Your task to perform on an android device: add a contact in the contacts app Image 0: 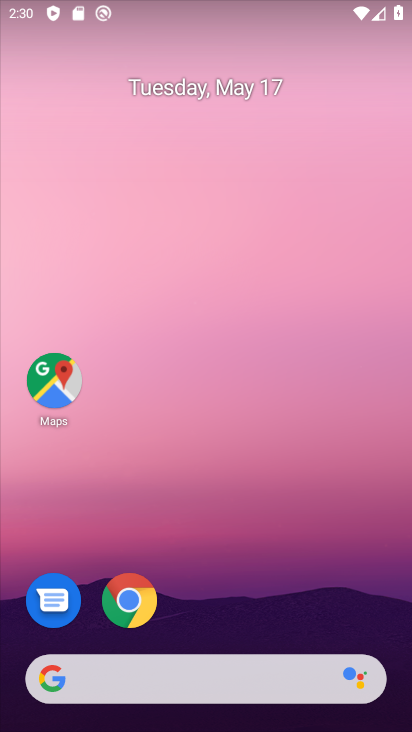
Step 0: drag from (181, 609) to (251, 77)
Your task to perform on an android device: add a contact in the contacts app Image 1: 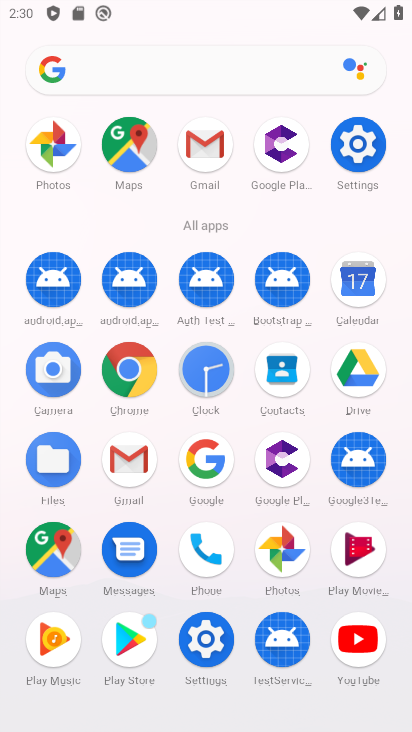
Step 1: click (281, 379)
Your task to perform on an android device: add a contact in the contacts app Image 2: 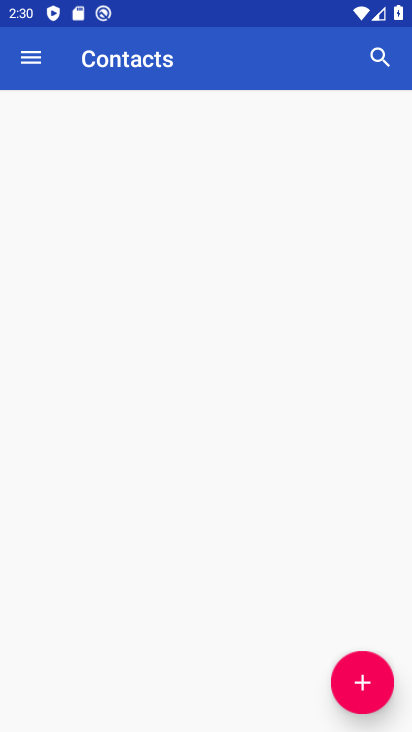
Step 2: click (367, 679)
Your task to perform on an android device: add a contact in the contacts app Image 3: 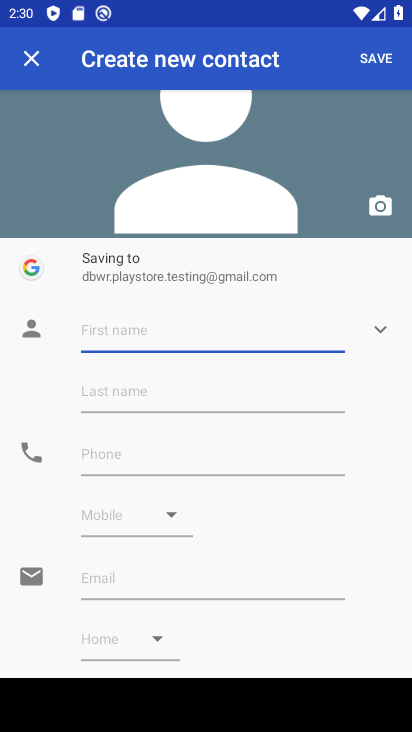
Step 3: type "sona"
Your task to perform on an android device: add a contact in the contacts app Image 4: 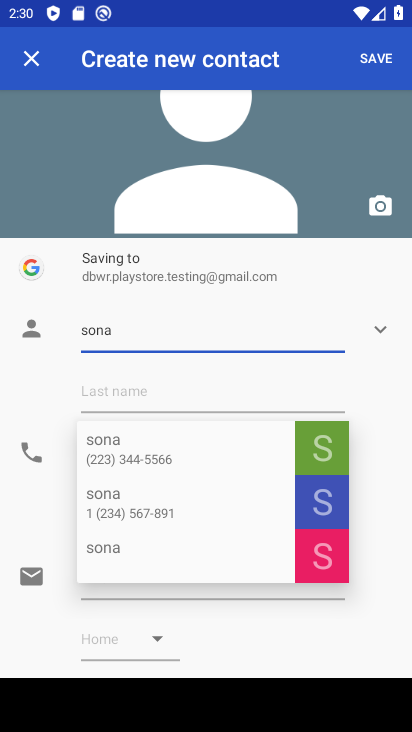
Step 4: click (113, 467)
Your task to perform on an android device: add a contact in the contacts app Image 5: 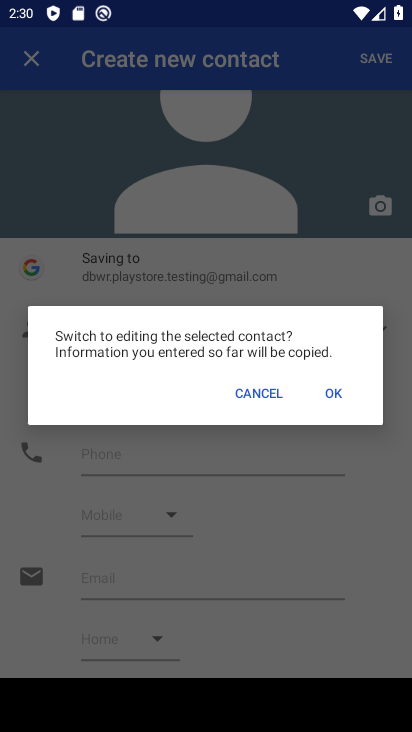
Step 5: click (265, 404)
Your task to perform on an android device: add a contact in the contacts app Image 6: 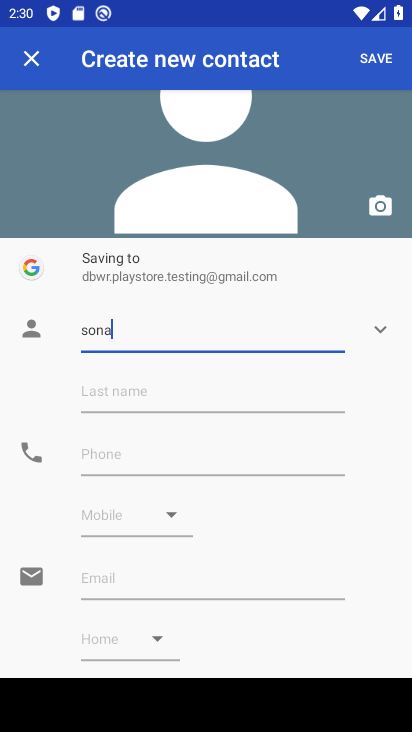
Step 6: type "aaa"
Your task to perform on an android device: add a contact in the contacts app Image 7: 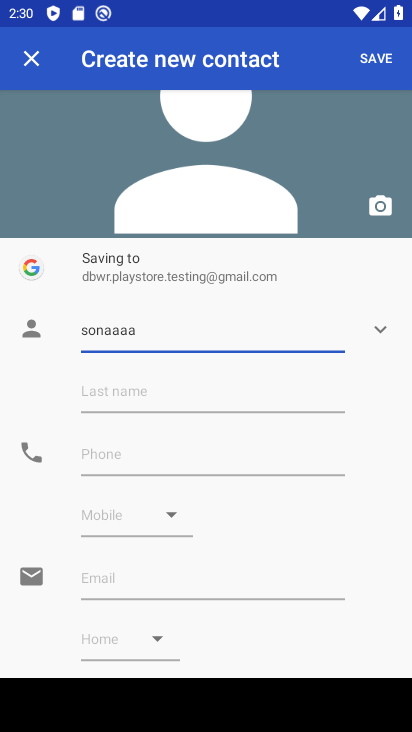
Step 7: click (95, 451)
Your task to perform on an android device: add a contact in the contacts app Image 8: 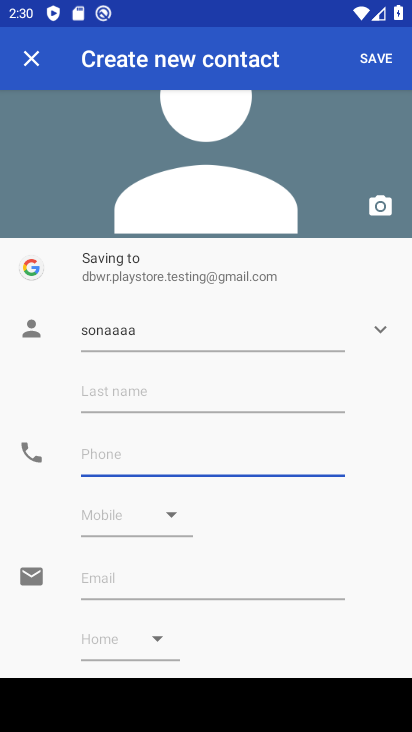
Step 8: type "898989698"
Your task to perform on an android device: add a contact in the contacts app Image 9: 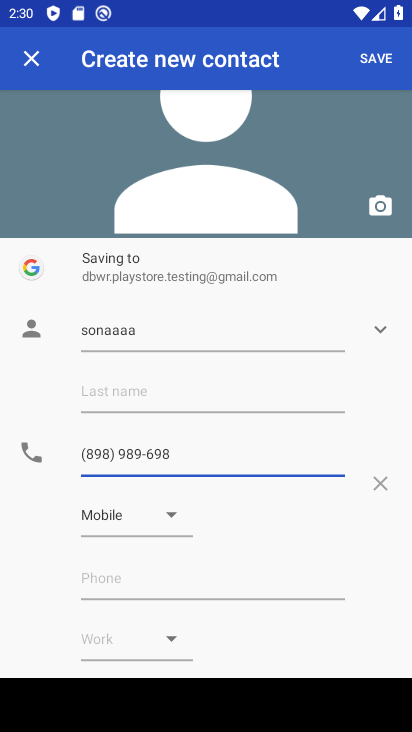
Step 9: type "6"
Your task to perform on an android device: add a contact in the contacts app Image 10: 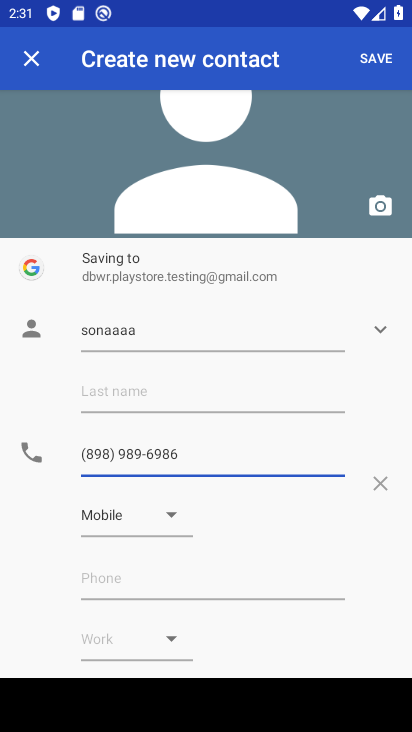
Step 10: click (385, 71)
Your task to perform on an android device: add a contact in the contacts app Image 11: 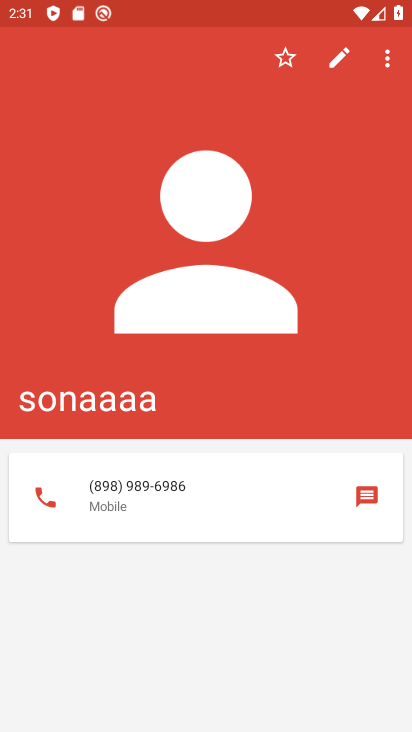
Step 11: task complete